Your task to perform on an android device: Show me recent news Image 0: 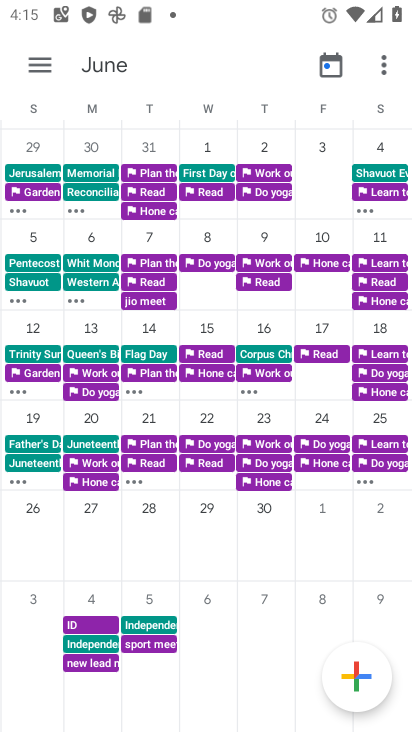
Step 0: press home button
Your task to perform on an android device: Show me recent news Image 1: 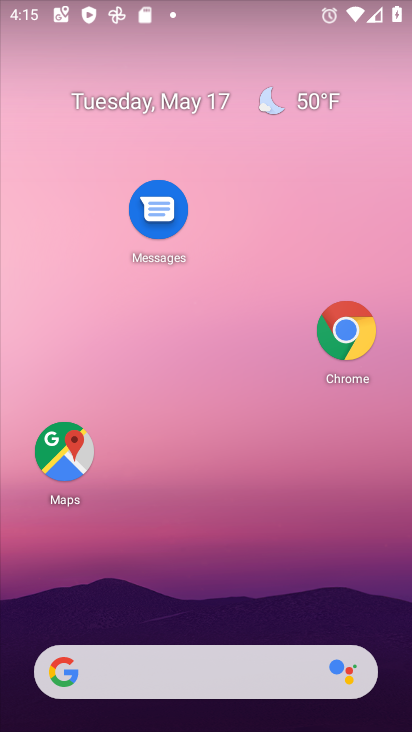
Step 1: drag from (265, 505) to (236, 52)
Your task to perform on an android device: Show me recent news Image 2: 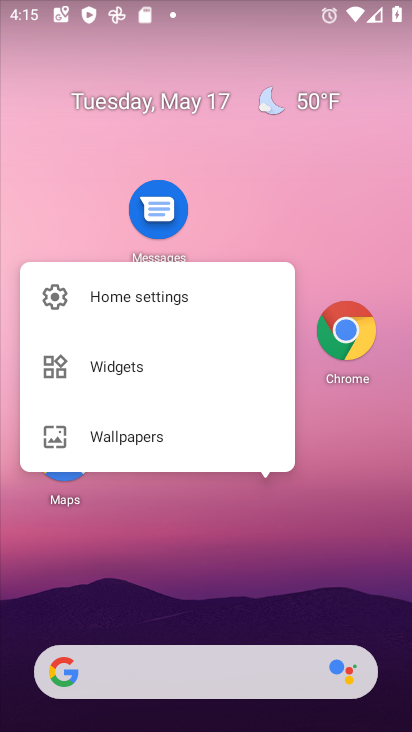
Step 2: click (215, 575)
Your task to perform on an android device: Show me recent news Image 3: 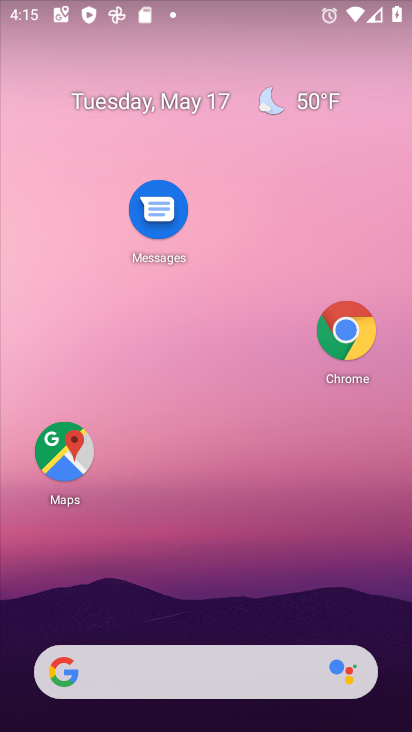
Step 3: drag from (215, 575) to (177, 0)
Your task to perform on an android device: Show me recent news Image 4: 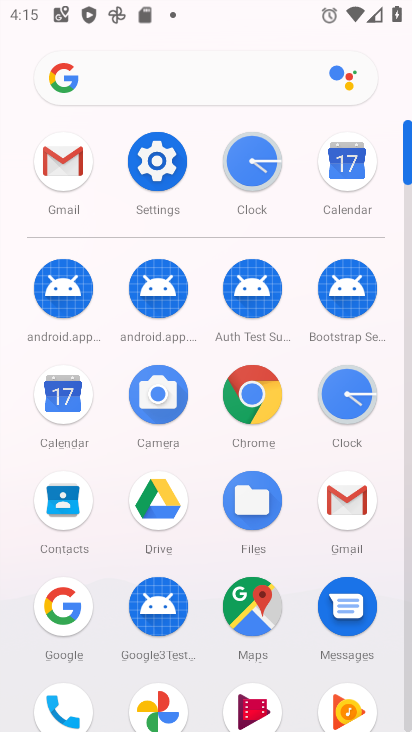
Step 4: click (189, 77)
Your task to perform on an android device: Show me recent news Image 5: 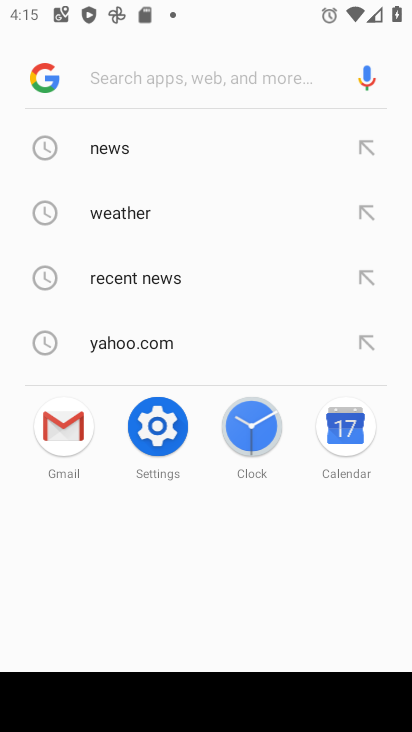
Step 5: click (174, 149)
Your task to perform on an android device: Show me recent news Image 6: 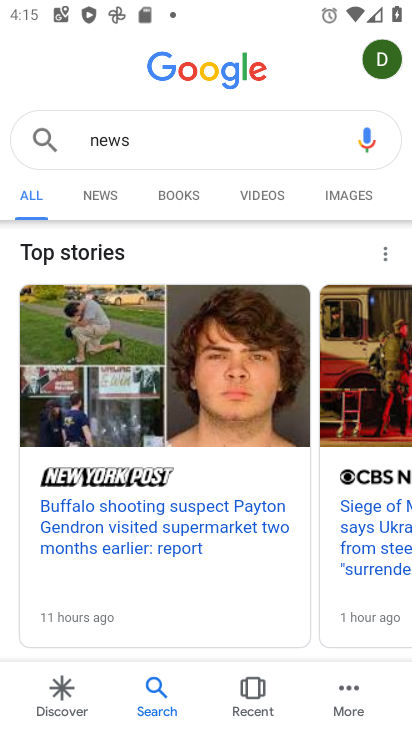
Step 6: task complete